Your task to perform on an android device: toggle data saver in the chrome app Image 0: 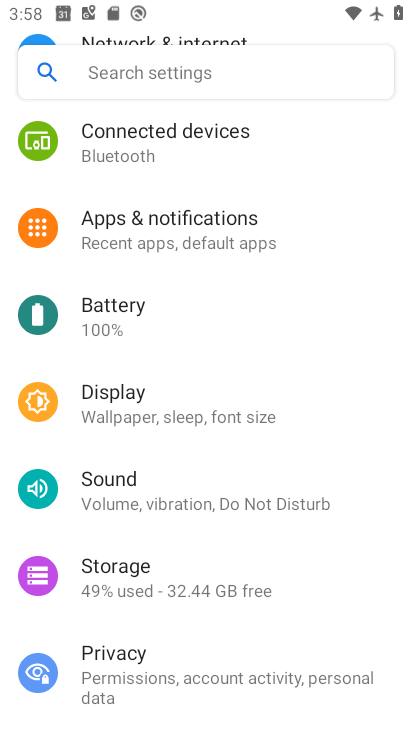
Step 0: drag from (305, 621) to (308, 211)
Your task to perform on an android device: toggle data saver in the chrome app Image 1: 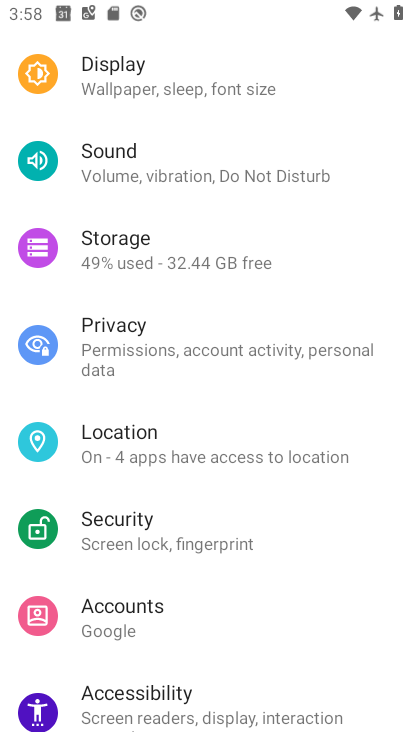
Step 1: click (308, 203)
Your task to perform on an android device: toggle data saver in the chrome app Image 2: 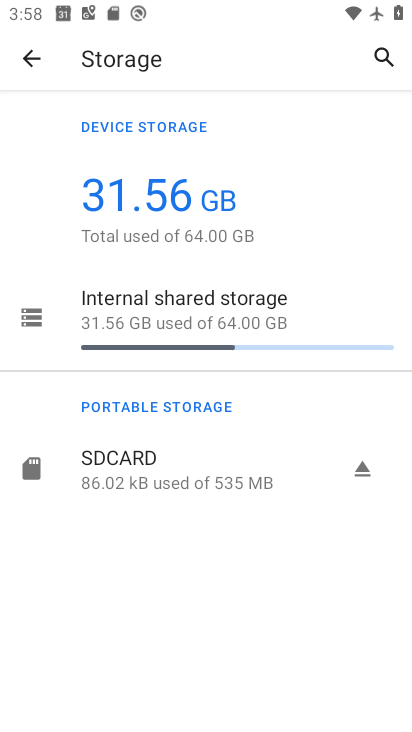
Step 2: press home button
Your task to perform on an android device: toggle data saver in the chrome app Image 3: 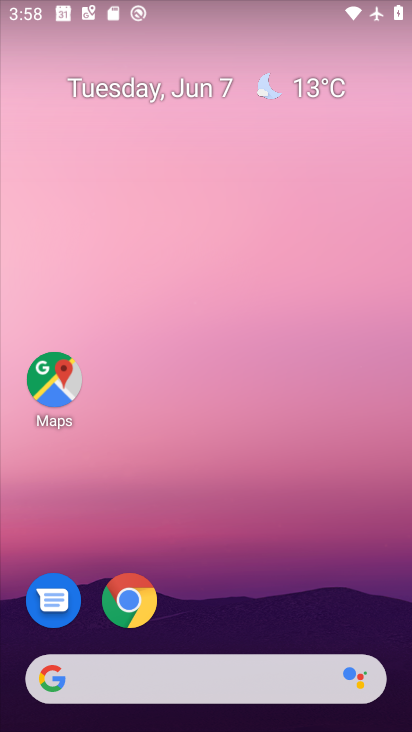
Step 3: click (134, 599)
Your task to perform on an android device: toggle data saver in the chrome app Image 4: 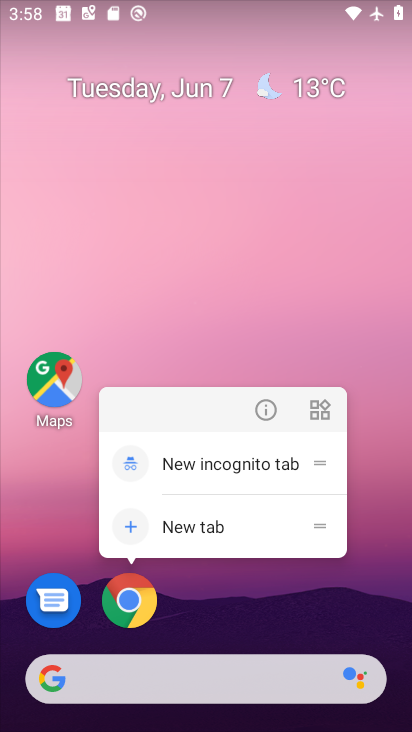
Step 4: click (134, 599)
Your task to perform on an android device: toggle data saver in the chrome app Image 5: 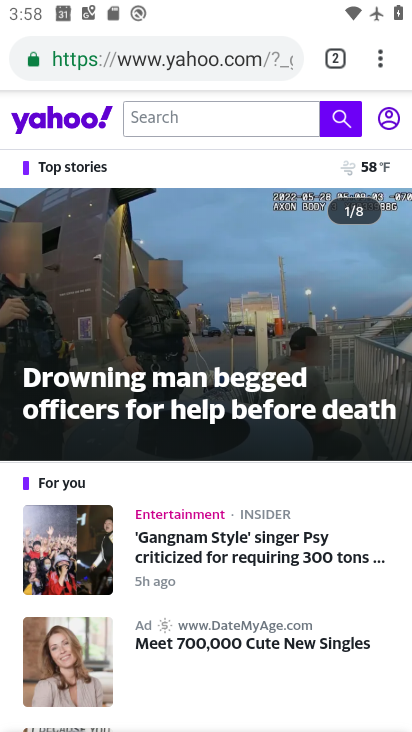
Step 5: drag from (384, 50) to (269, 628)
Your task to perform on an android device: toggle data saver in the chrome app Image 6: 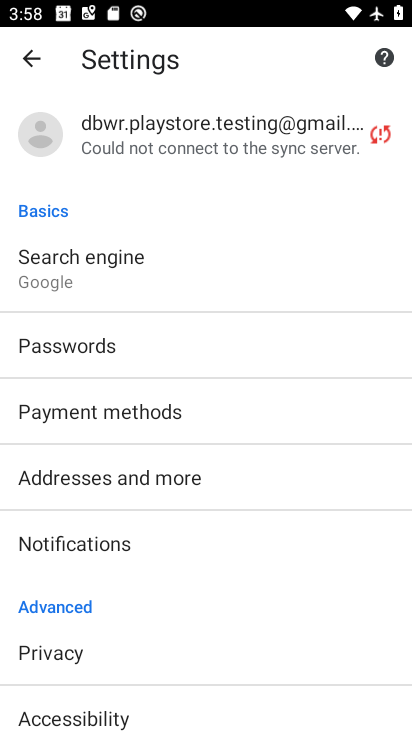
Step 6: drag from (271, 597) to (248, 35)
Your task to perform on an android device: toggle data saver in the chrome app Image 7: 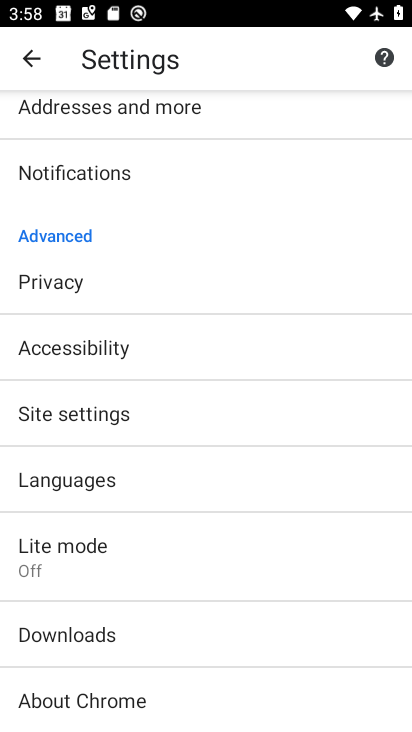
Step 7: click (101, 540)
Your task to perform on an android device: toggle data saver in the chrome app Image 8: 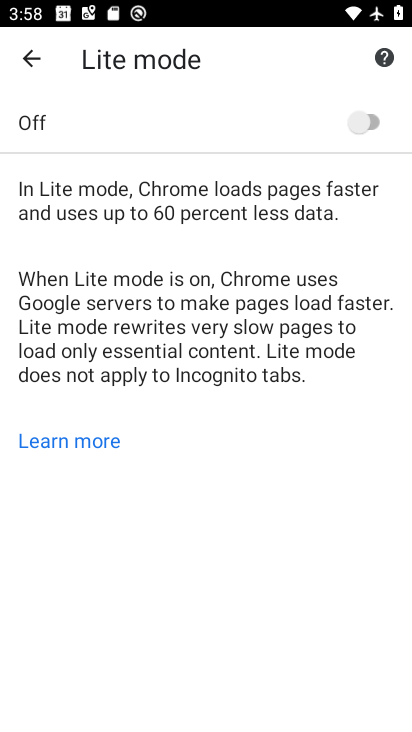
Step 8: click (317, 112)
Your task to perform on an android device: toggle data saver in the chrome app Image 9: 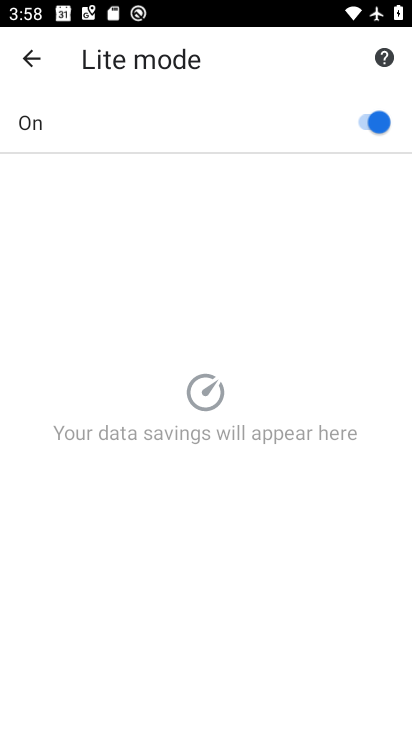
Step 9: task complete